Your task to perform on an android device: find which apps use the phone's location Image 0: 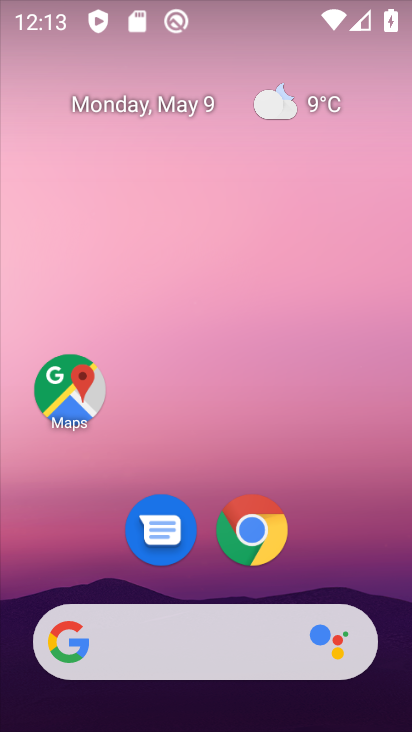
Step 0: drag from (355, 569) to (351, 182)
Your task to perform on an android device: find which apps use the phone's location Image 1: 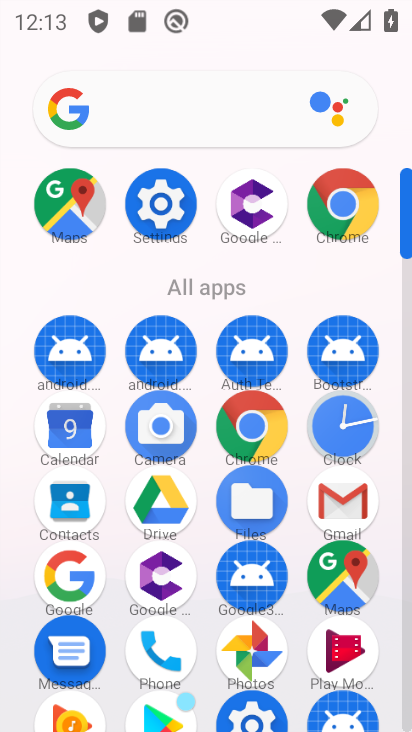
Step 1: click (173, 190)
Your task to perform on an android device: find which apps use the phone's location Image 2: 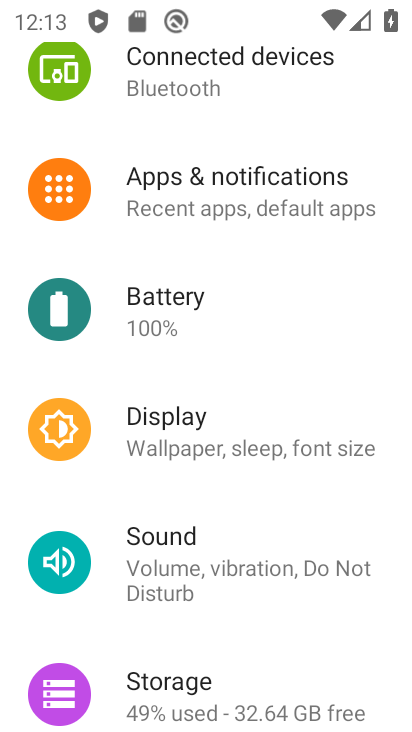
Step 2: drag from (227, 606) to (267, 129)
Your task to perform on an android device: find which apps use the phone's location Image 3: 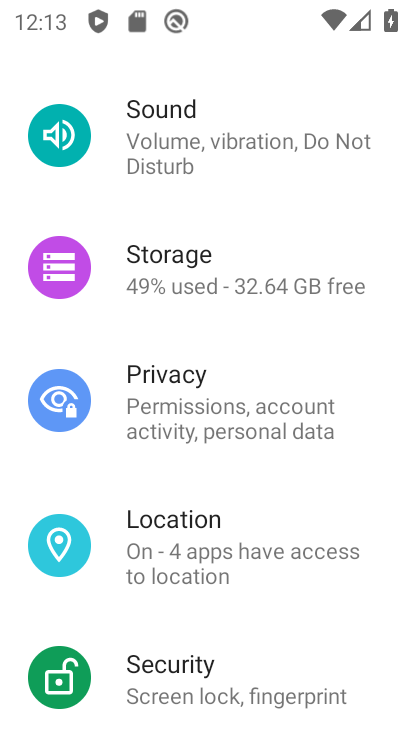
Step 3: click (218, 545)
Your task to perform on an android device: find which apps use the phone's location Image 4: 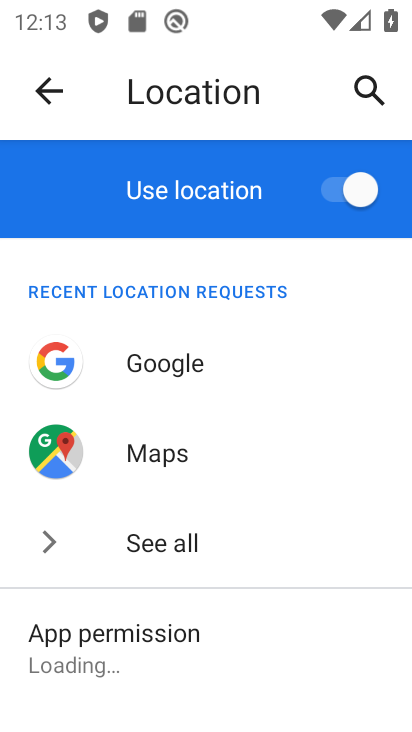
Step 4: task complete